Your task to perform on an android device: Go to display settings Image 0: 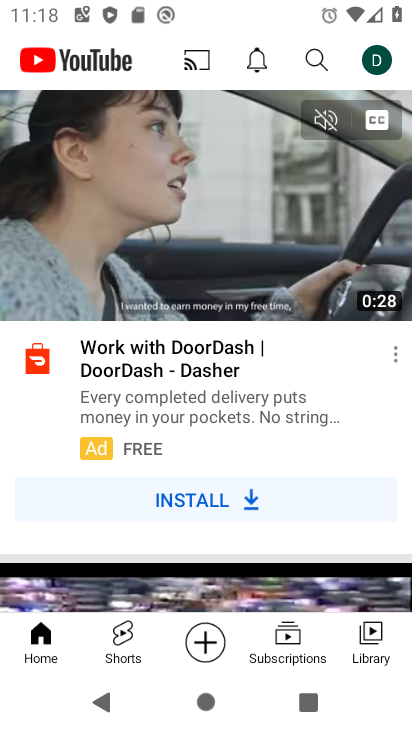
Step 0: press home button
Your task to perform on an android device: Go to display settings Image 1: 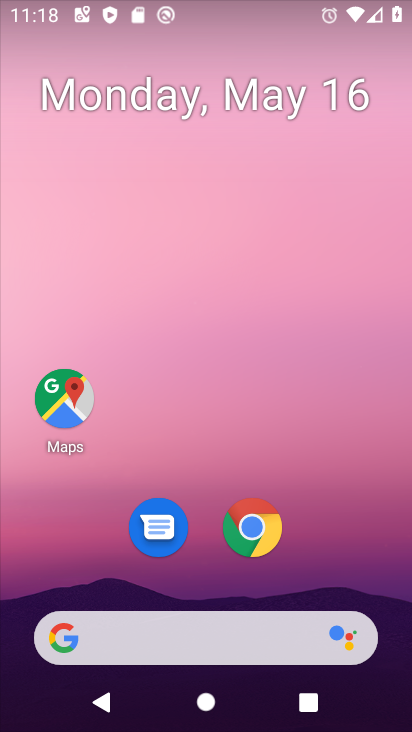
Step 1: drag from (351, 572) to (298, 0)
Your task to perform on an android device: Go to display settings Image 2: 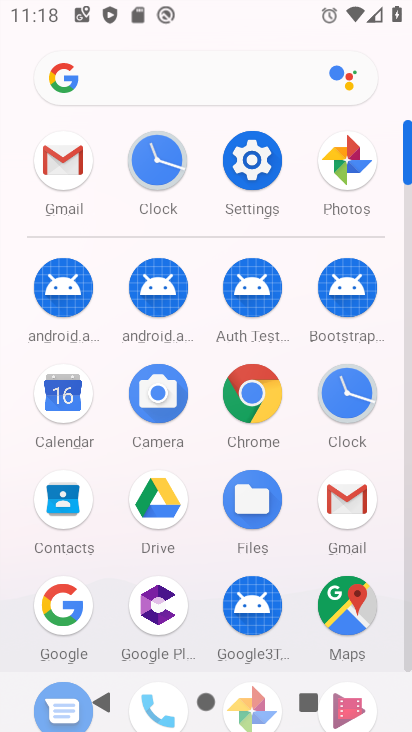
Step 2: click (251, 163)
Your task to perform on an android device: Go to display settings Image 3: 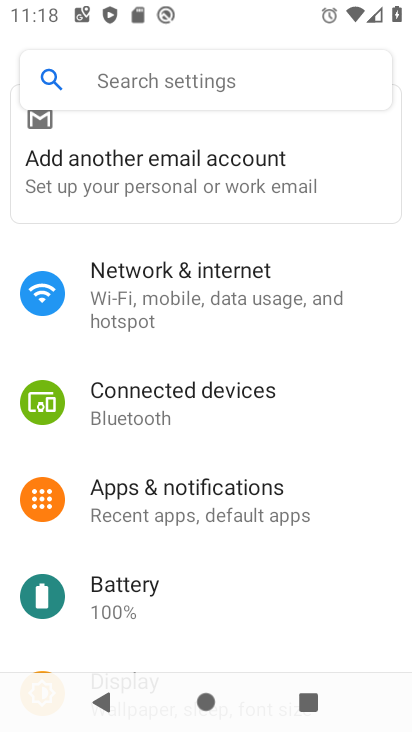
Step 3: drag from (222, 615) to (172, 251)
Your task to perform on an android device: Go to display settings Image 4: 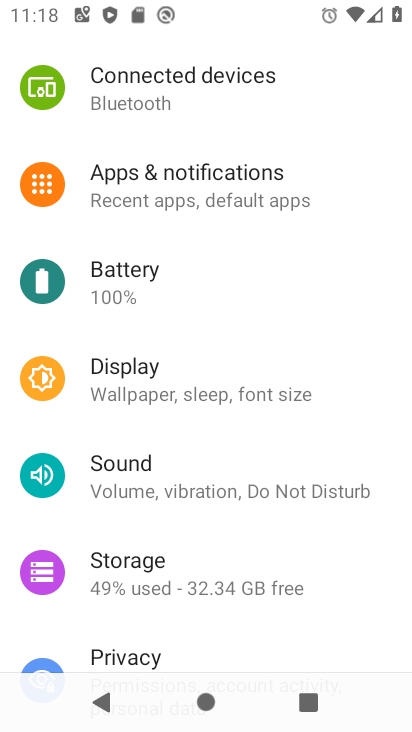
Step 4: click (153, 383)
Your task to perform on an android device: Go to display settings Image 5: 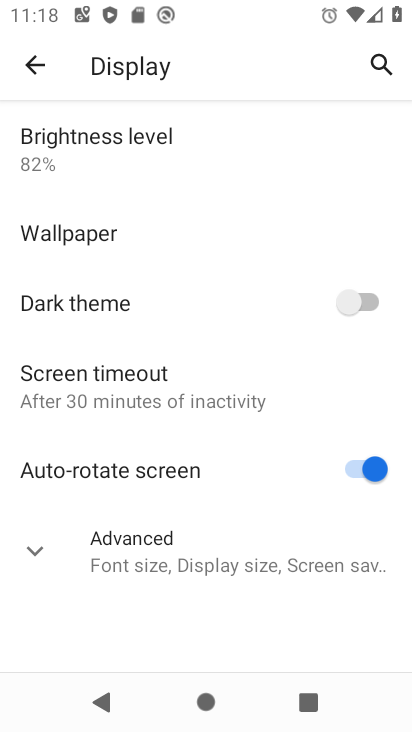
Step 5: click (38, 557)
Your task to perform on an android device: Go to display settings Image 6: 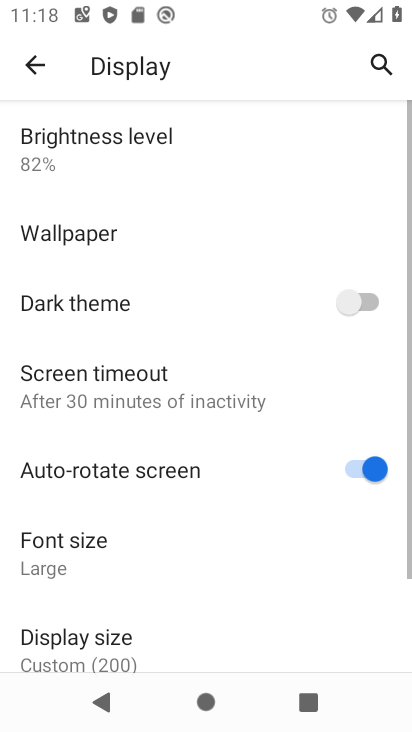
Step 6: task complete